Your task to perform on an android device: Open eBay Image 0: 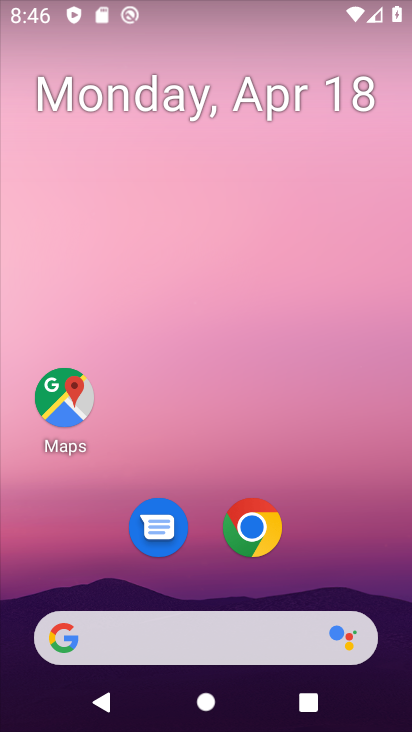
Step 0: drag from (327, 478) to (320, 43)
Your task to perform on an android device: Open eBay Image 1: 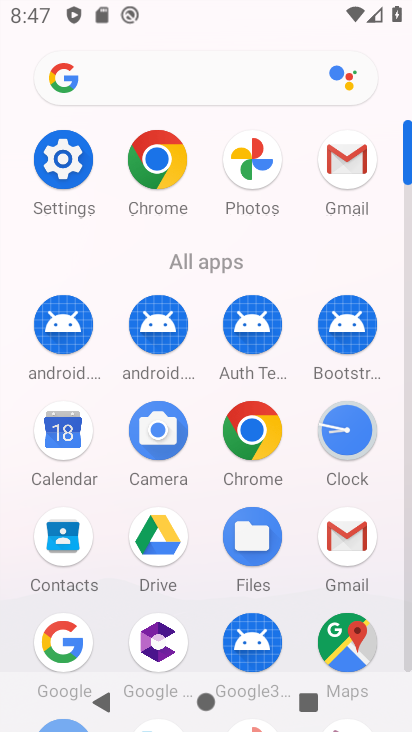
Step 1: click (252, 420)
Your task to perform on an android device: Open eBay Image 2: 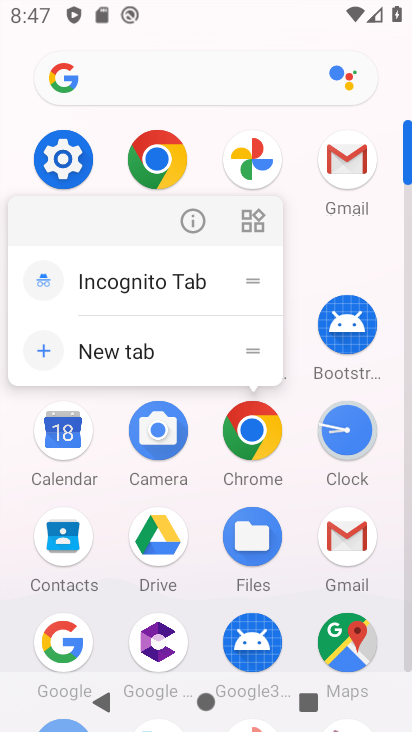
Step 2: click (254, 437)
Your task to perform on an android device: Open eBay Image 3: 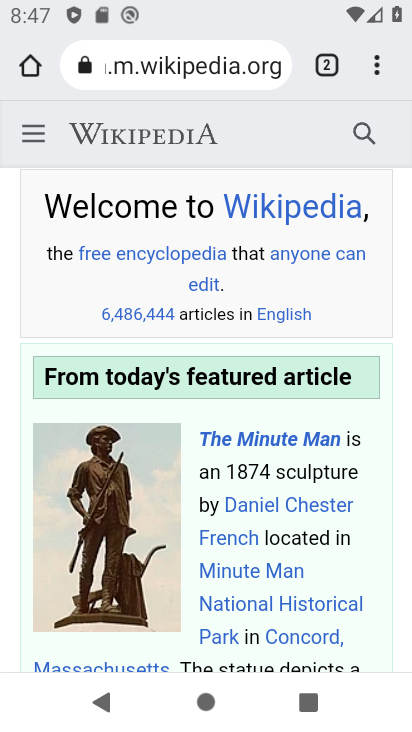
Step 3: drag from (374, 57) to (207, 123)
Your task to perform on an android device: Open eBay Image 4: 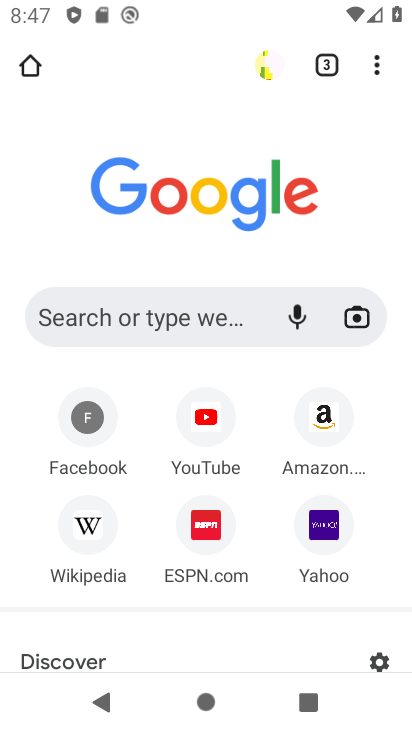
Step 4: click (149, 314)
Your task to perform on an android device: Open eBay Image 5: 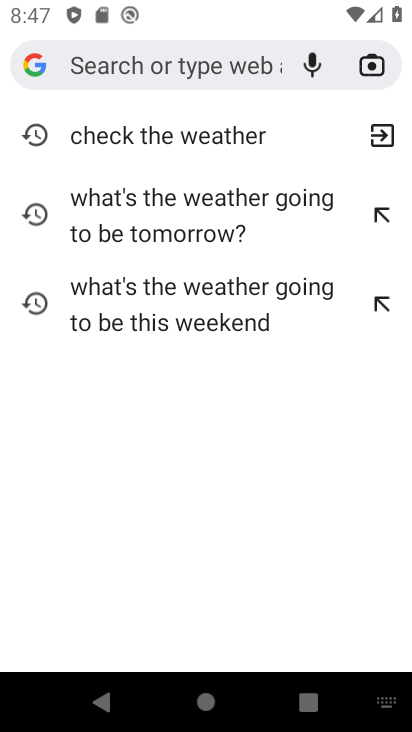
Step 5: type " eBay"
Your task to perform on an android device: Open eBay Image 6: 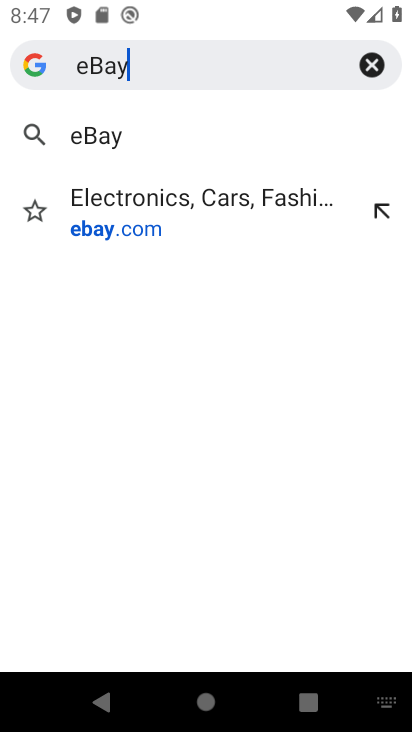
Step 6: click (136, 229)
Your task to perform on an android device: Open eBay Image 7: 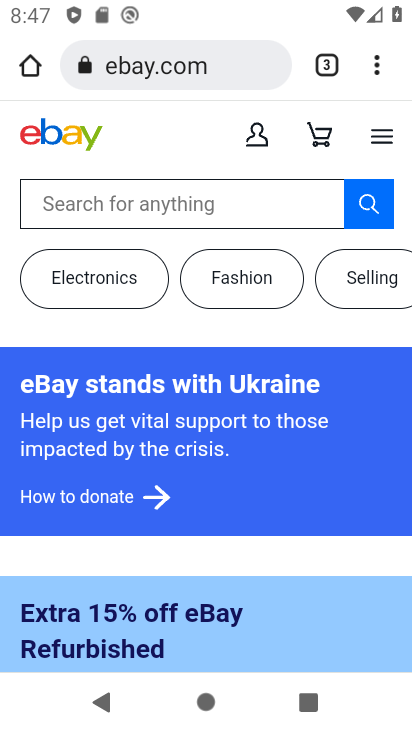
Step 7: task complete